Your task to perform on an android device: Open sound settings Image 0: 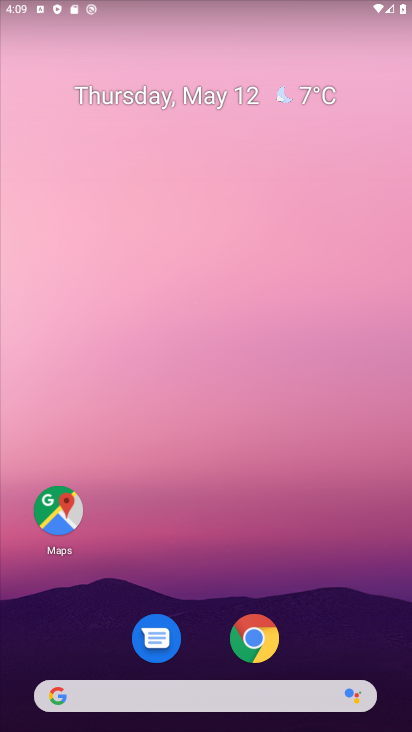
Step 0: drag from (286, 342) to (247, 119)
Your task to perform on an android device: Open sound settings Image 1: 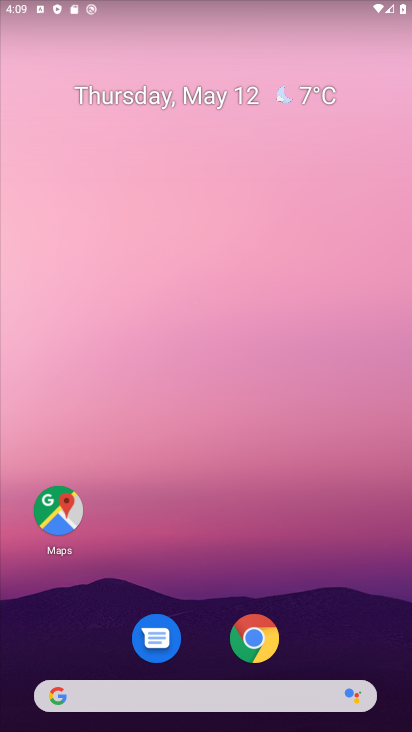
Step 1: drag from (299, 404) to (244, 1)
Your task to perform on an android device: Open sound settings Image 2: 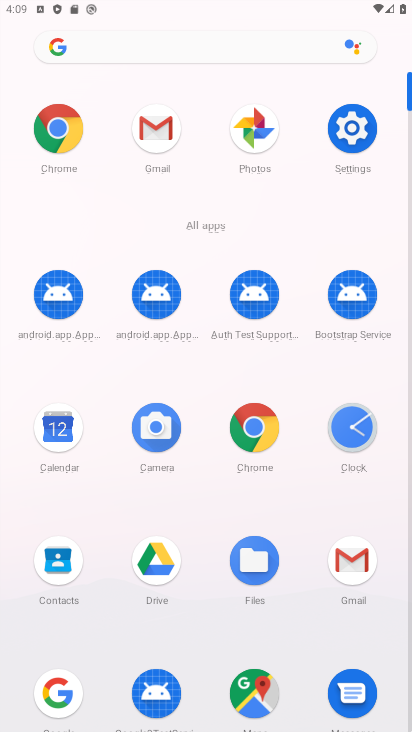
Step 2: click (355, 107)
Your task to perform on an android device: Open sound settings Image 3: 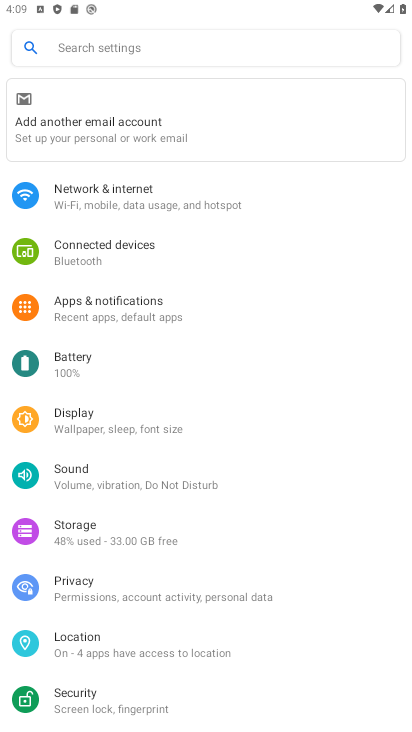
Step 3: click (125, 470)
Your task to perform on an android device: Open sound settings Image 4: 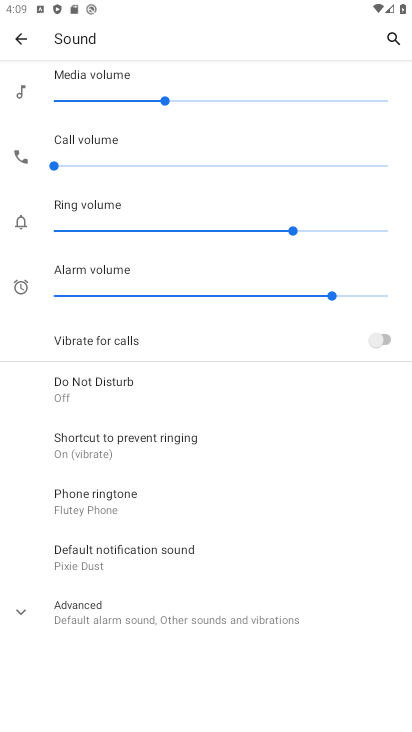
Step 4: task complete